Your task to perform on an android device: stop showing notifications on the lock screen Image 0: 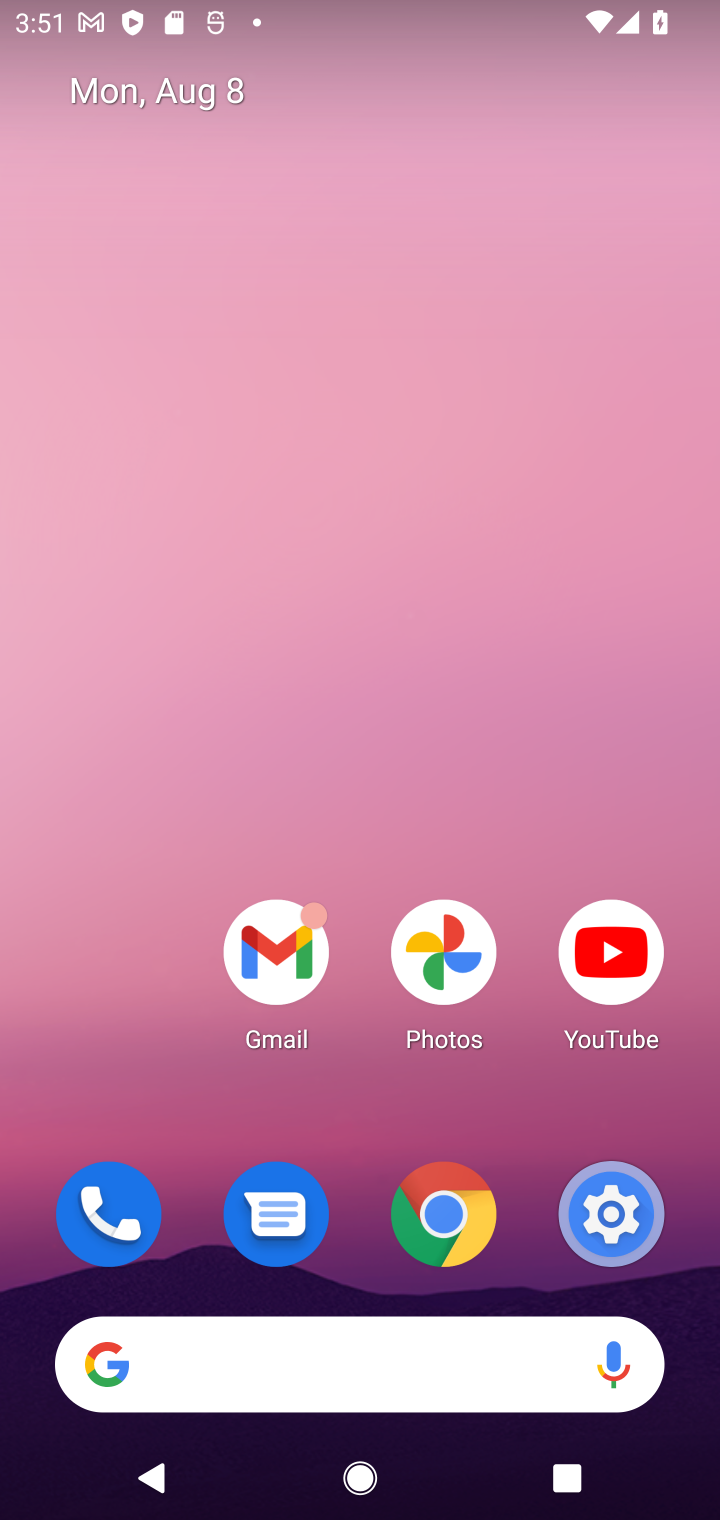
Step 0: drag from (349, 1307) to (412, 249)
Your task to perform on an android device: stop showing notifications on the lock screen Image 1: 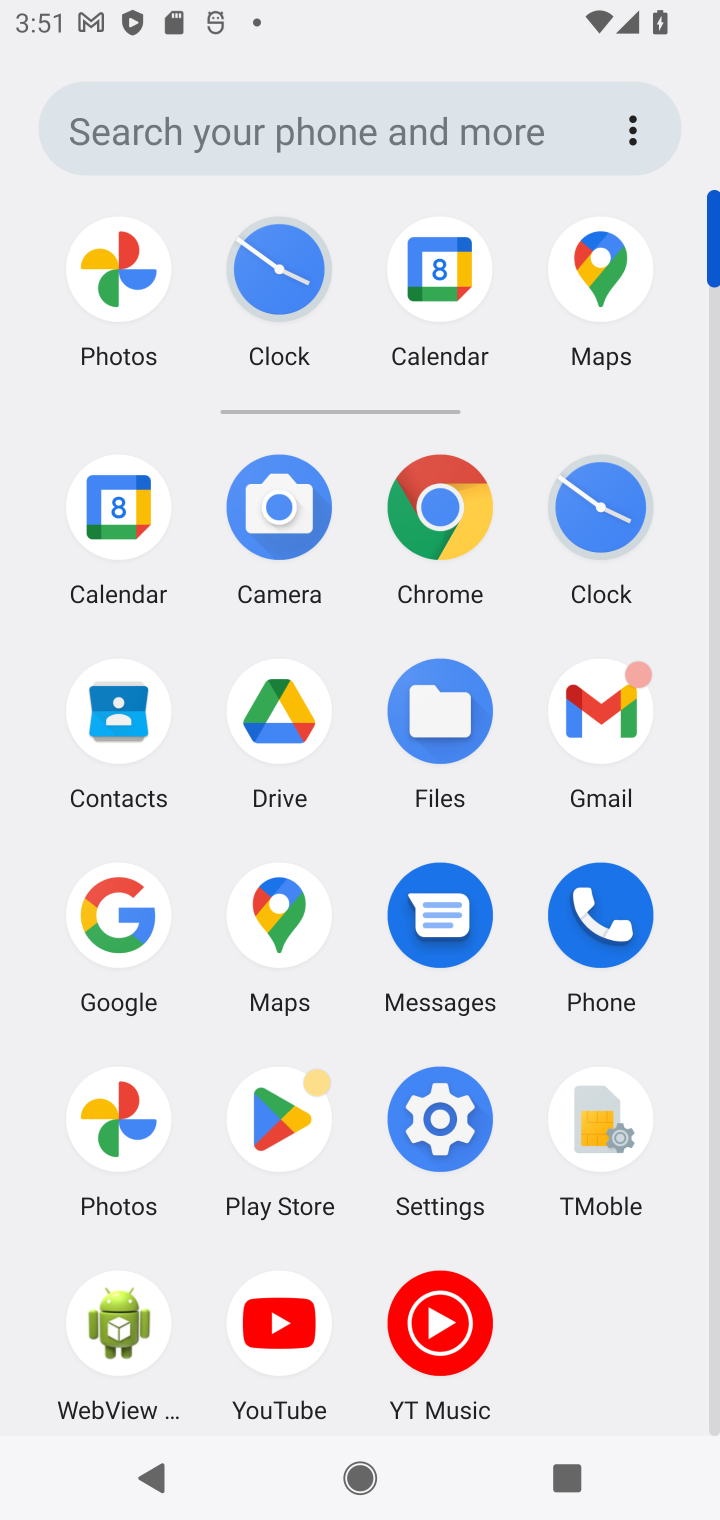
Step 1: click (442, 1098)
Your task to perform on an android device: stop showing notifications on the lock screen Image 2: 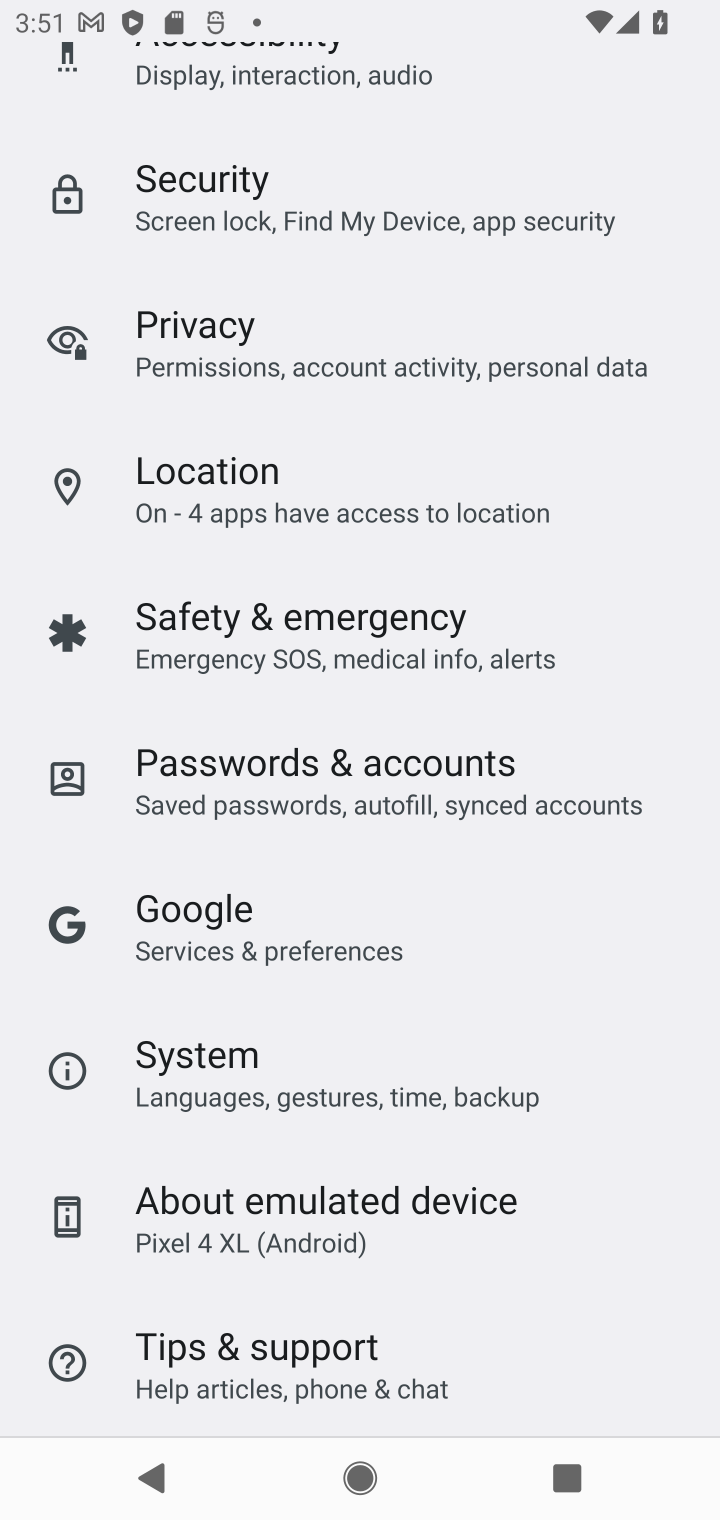
Step 2: drag from (323, 223) to (319, 981)
Your task to perform on an android device: stop showing notifications on the lock screen Image 3: 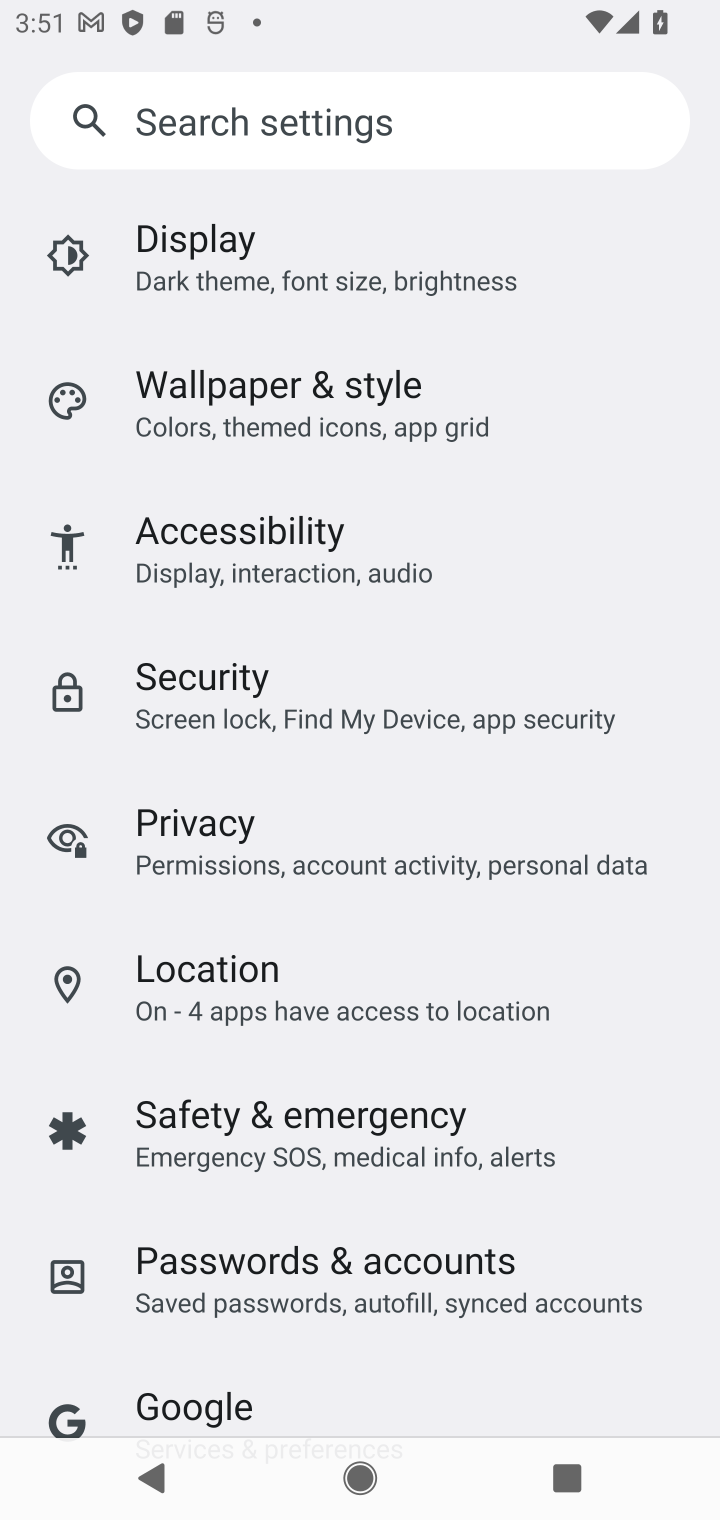
Step 3: drag from (225, 387) to (236, 809)
Your task to perform on an android device: stop showing notifications on the lock screen Image 4: 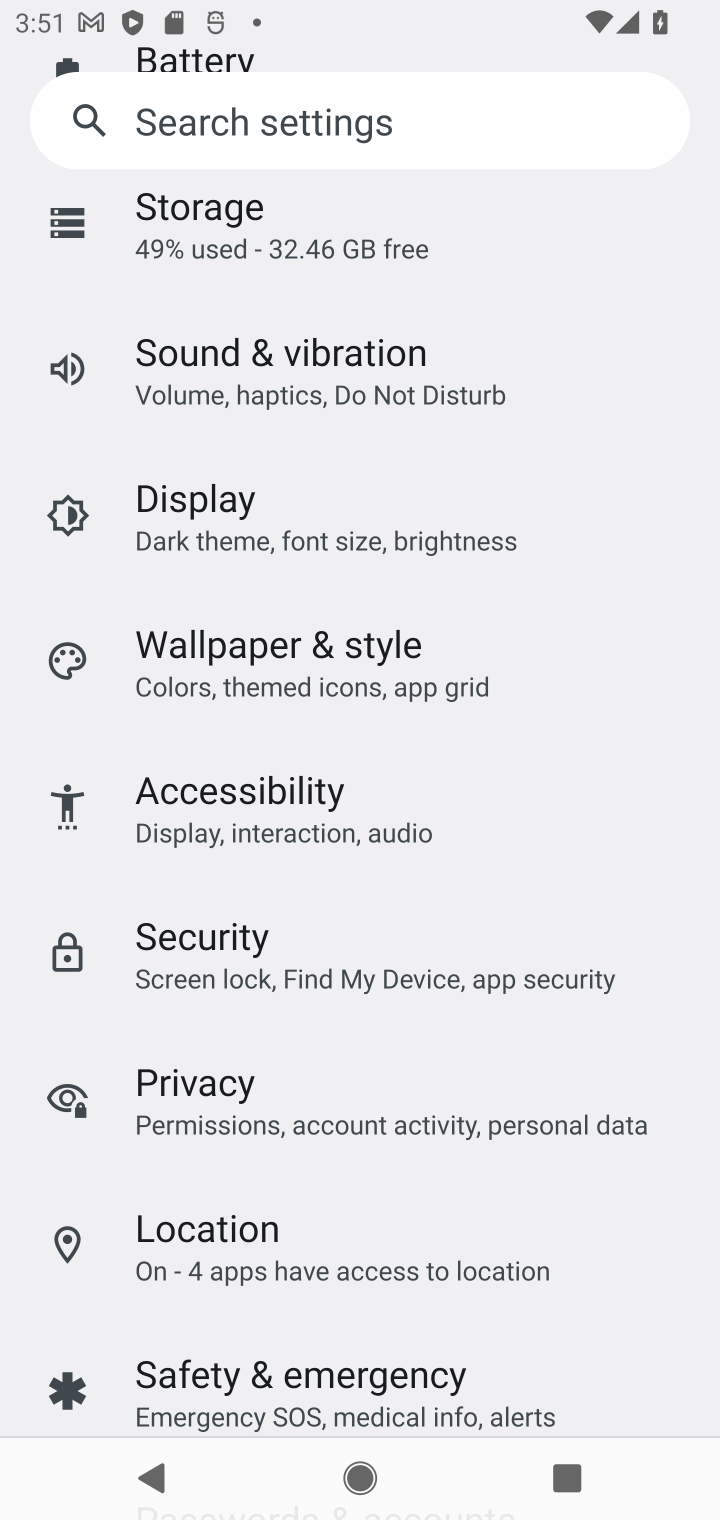
Step 4: drag from (226, 370) to (177, 1037)
Your task to perform on an android device: stop showing notifications on the lock screen Image 5: 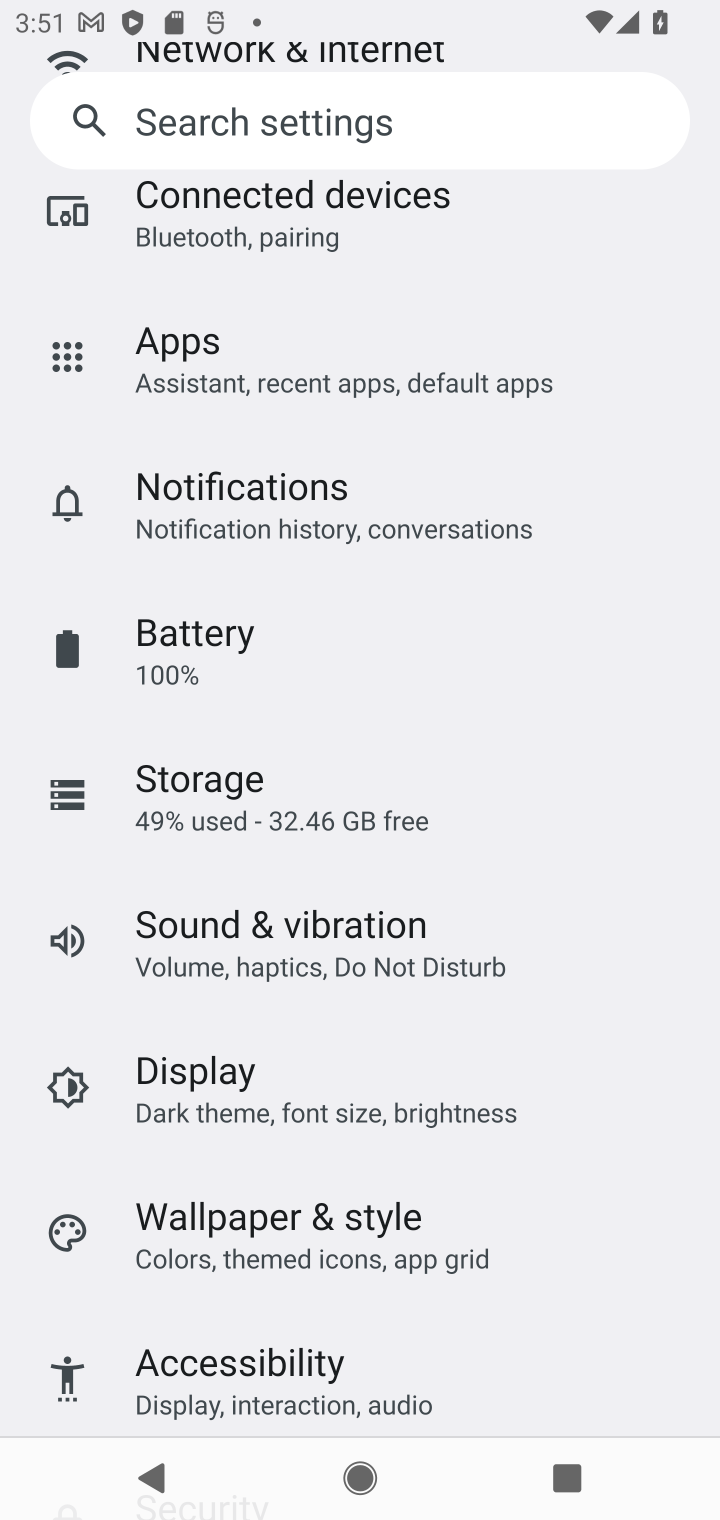
Step 5: click (204, 499)
Your task to perform on an android device: stop showing notifications on the lock screen Image 6: 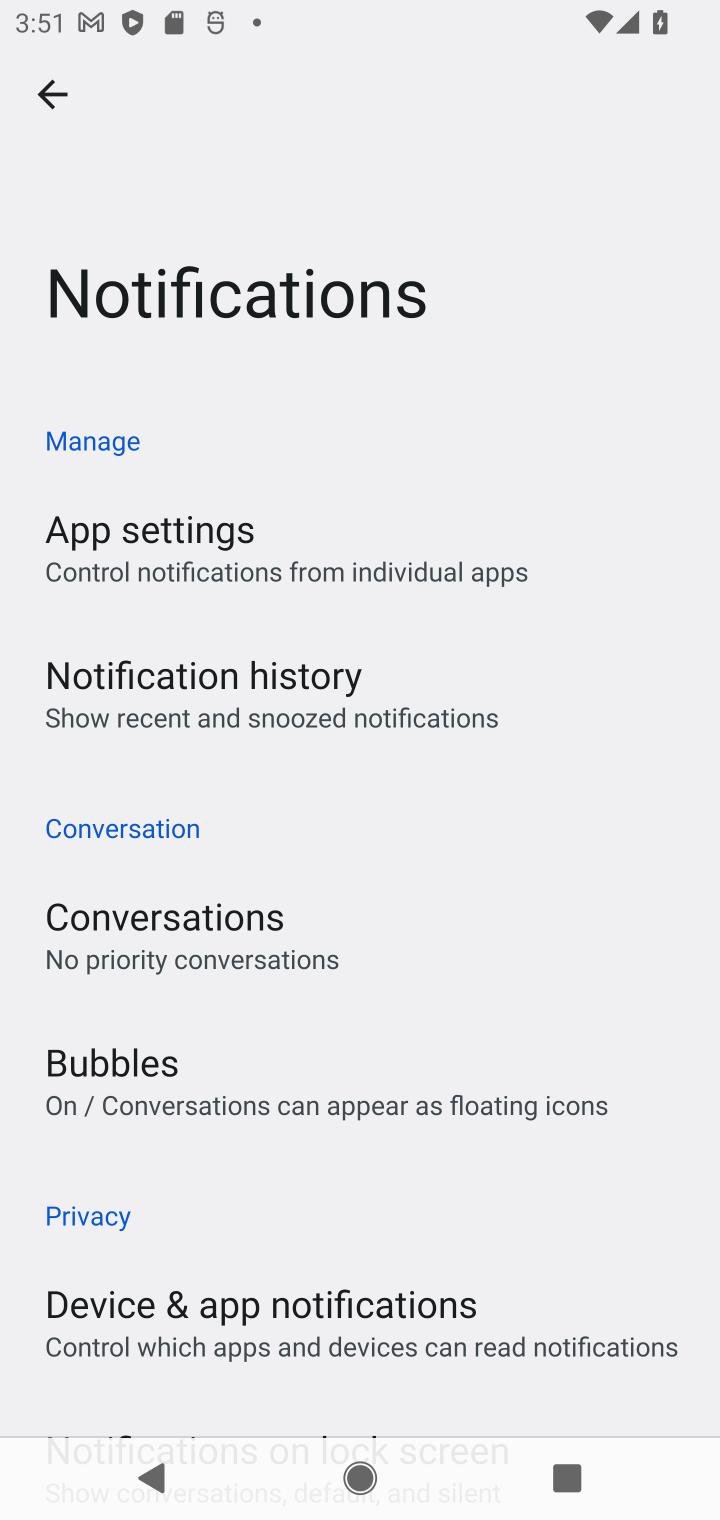
Step 6: drag from (223, 1276) to (148, 635)
Your task to perform on an android device: stop showing notifications on the lock screen Image 7: 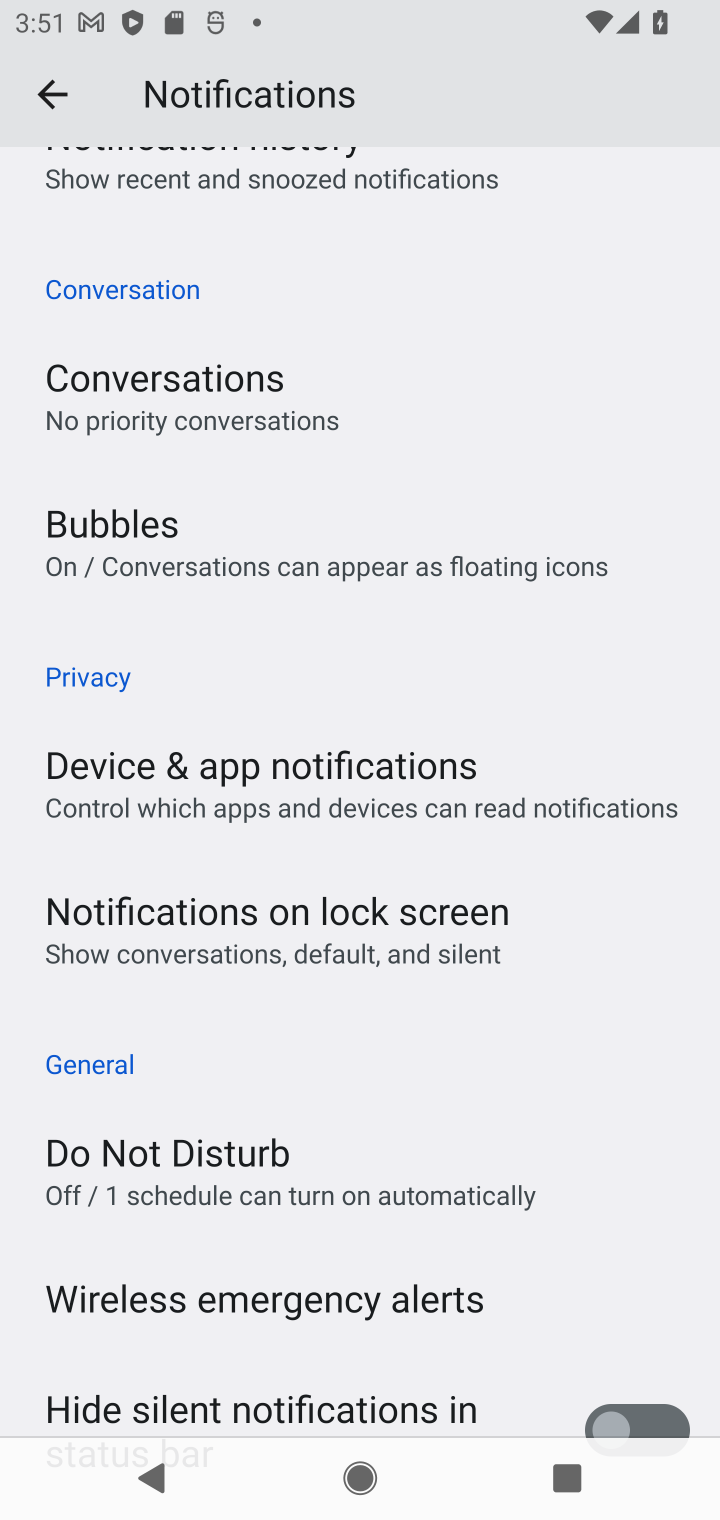
Step 7: drag from (209, 1343) to (184, 891)
Your task to perform on an android device: stop showing notifications on the lock screen Image 8: 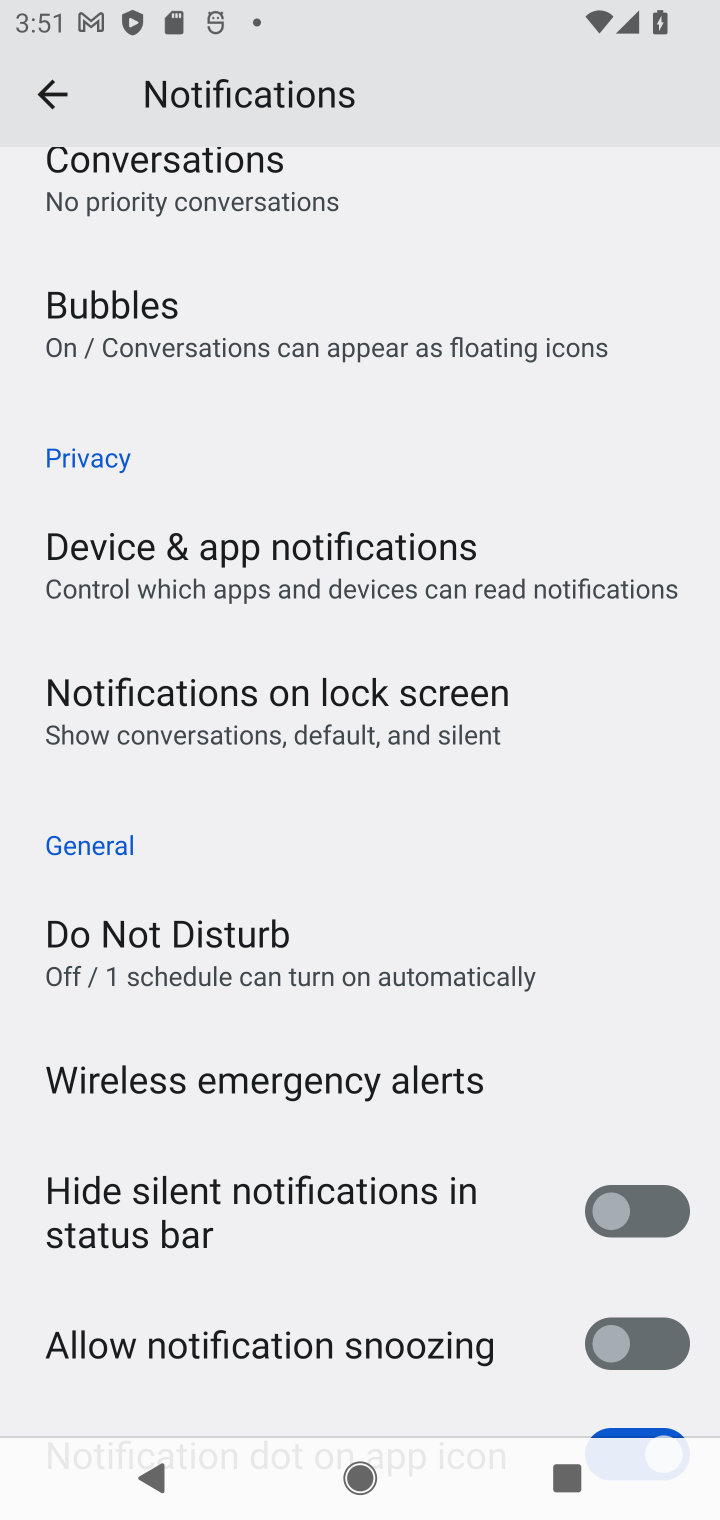
Step 8: drag from (371, 1334) to (354, 957)
Your task to perform on an android device: stop showing notifications on the lock screen Image 9: 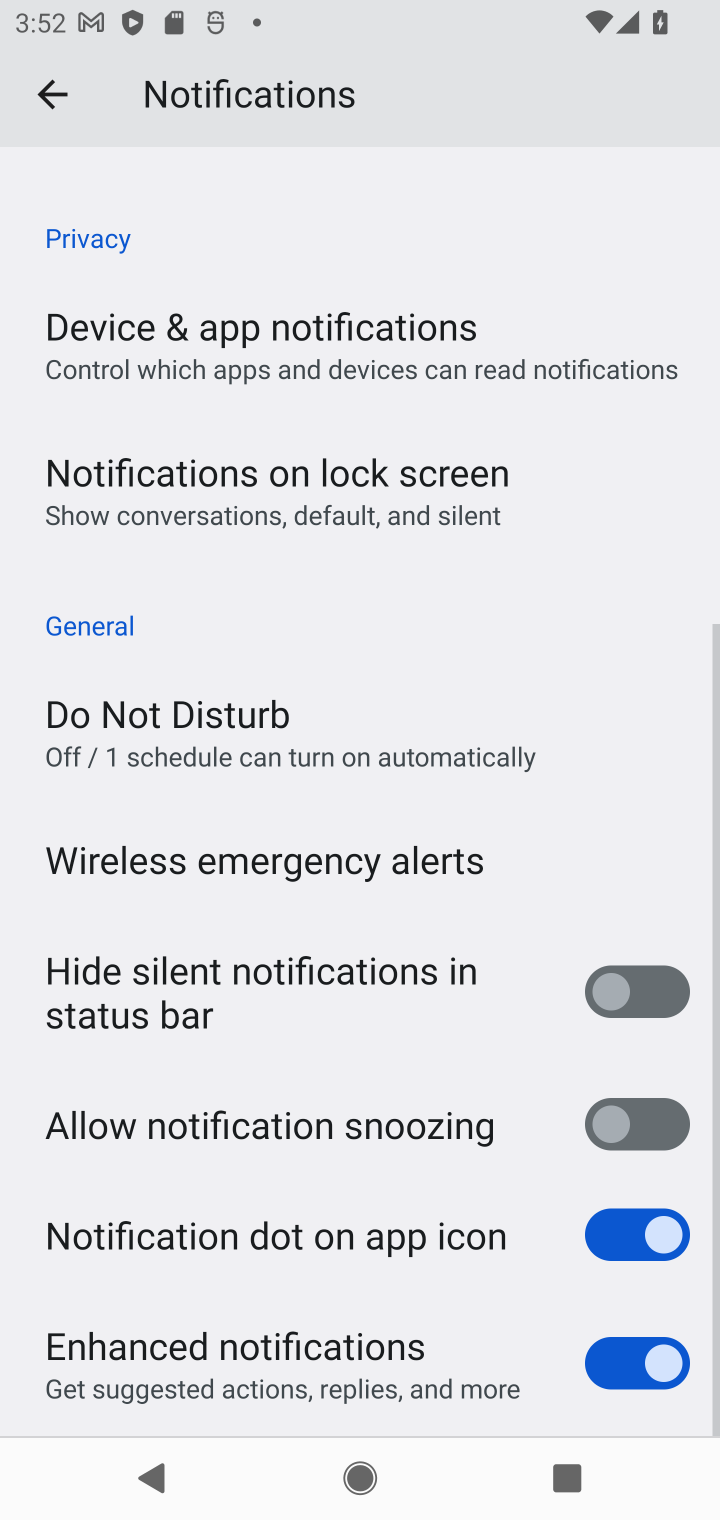
Step 9: click (138, 472)
Your task to perform on an android device: stop showing notifications on the lock screen Image 10: 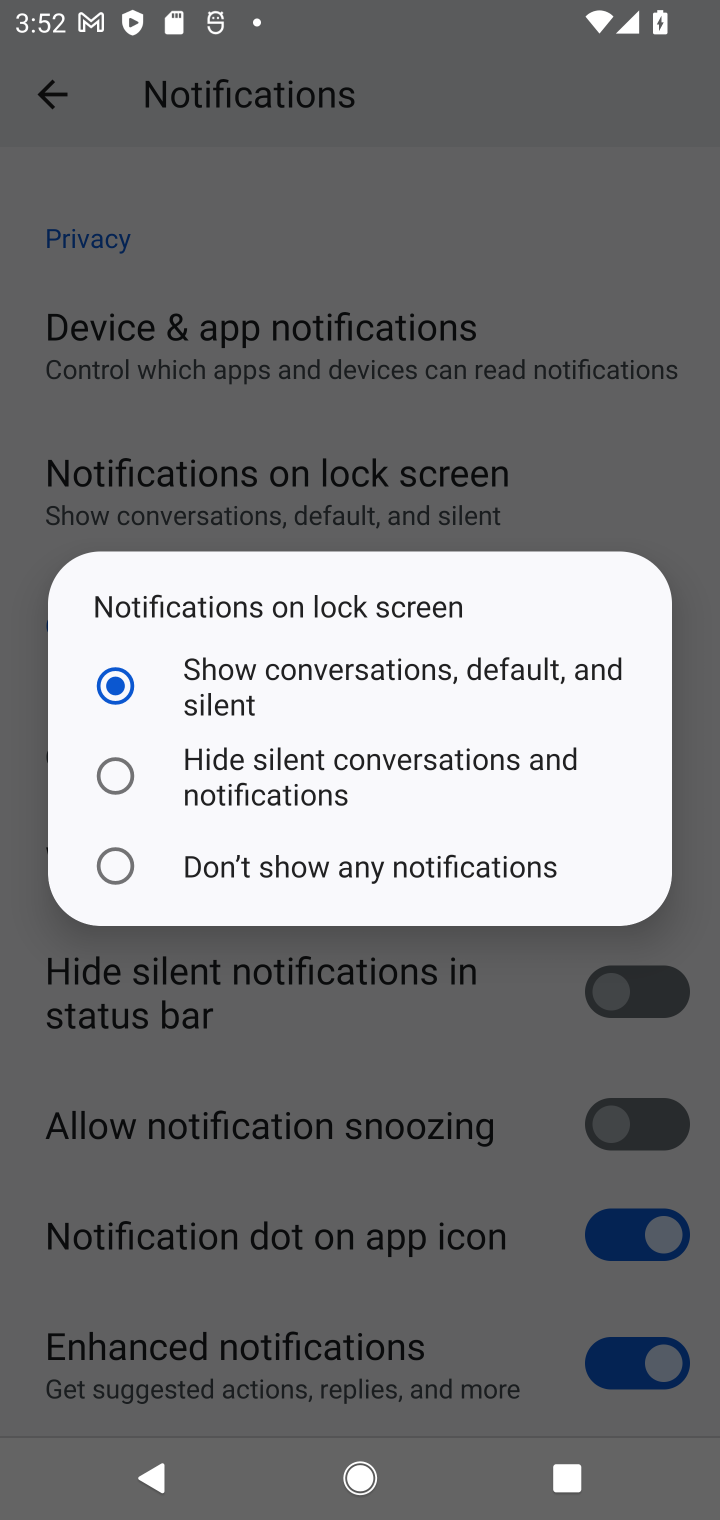
Step 10: click (106, 845)
Your task to perform on an android device: stop showing notifications on the lock screen Image 11: 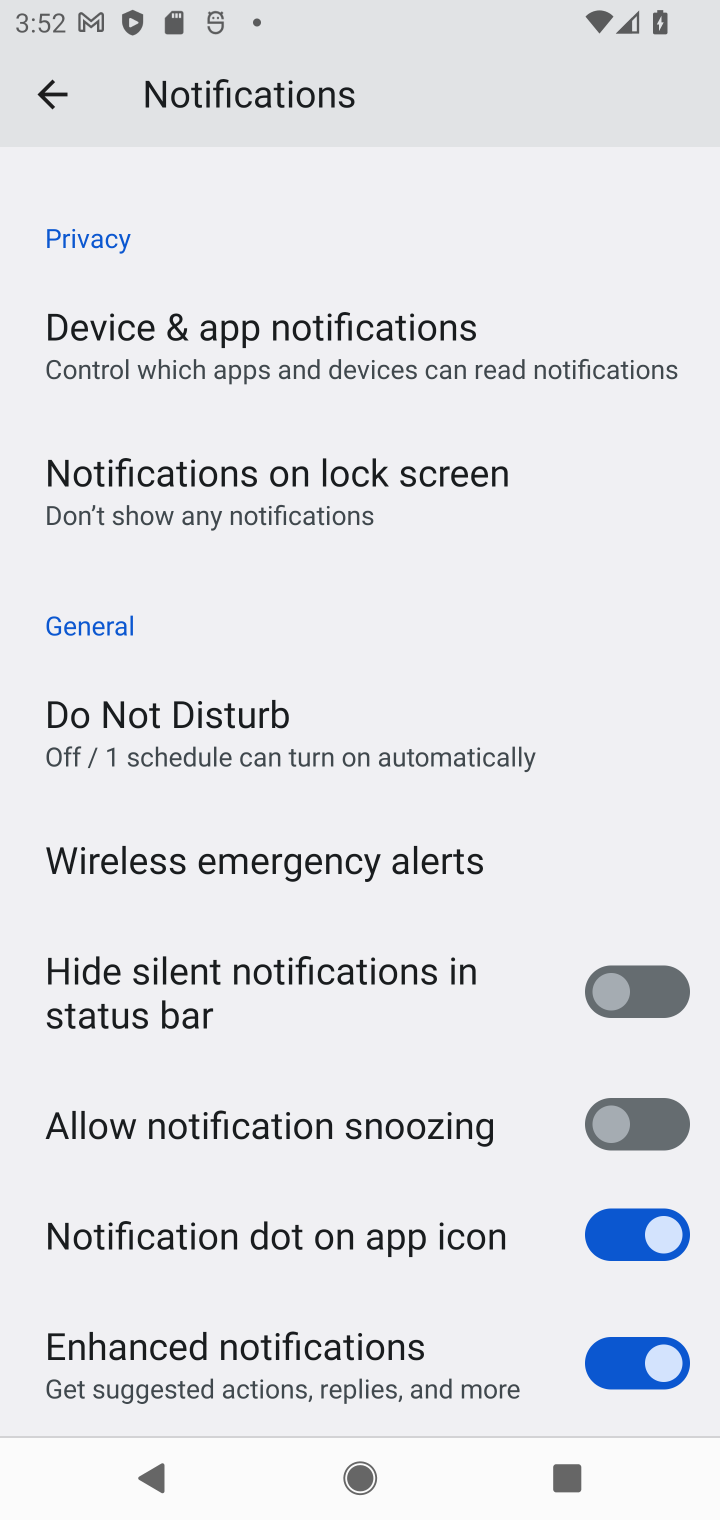
Step 11: task complete